Your task to perform on an android device: How far is the moon? Image 0: 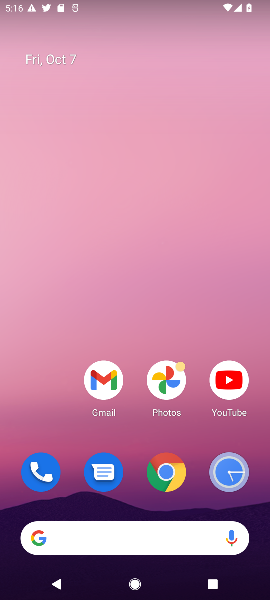
Step 0: click (173, 476)
Your task to perform on an android device: How far is the moon? Image 1: 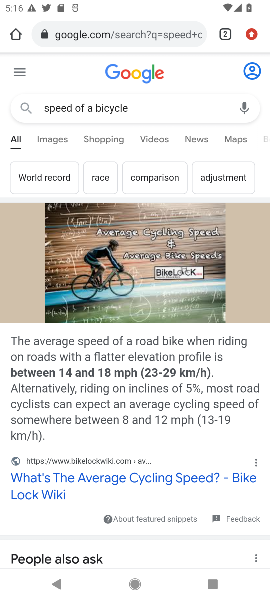
Step 1: click (159, 36)
Your task to perform on an android device: How far is the moon? Image 2: 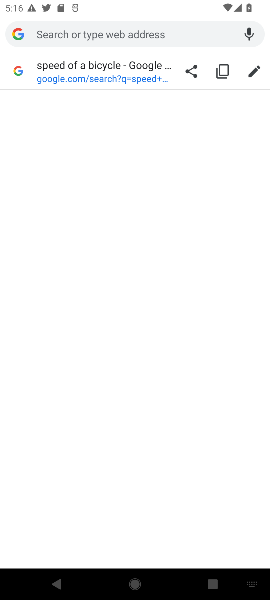
Step 2: type "How far is the moon"
Your task to perform on an android device: How far is the moon? Image 3: 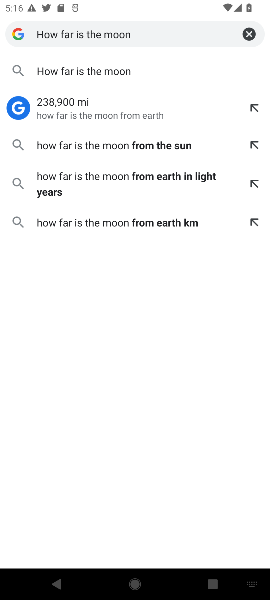
Step 3: click (114, 72)
Your task to perform on an android device: How far is the moon? Image 4: 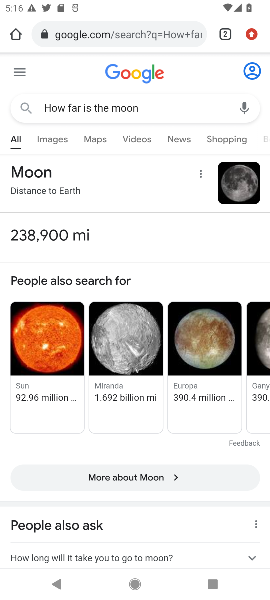
Step 4: click (73, 232)
Your task to perform on an android device: How far is the moon? Image 5: 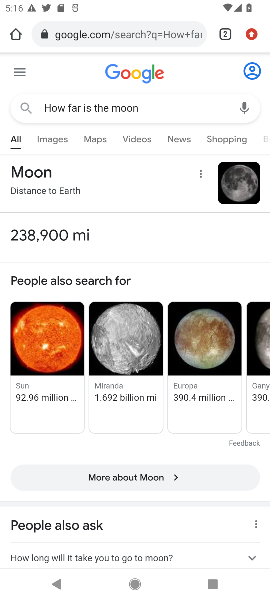
Step 5: task complete